Your task to perform on an android device: Open Youtube and go to the subscriptions tab Image 0: 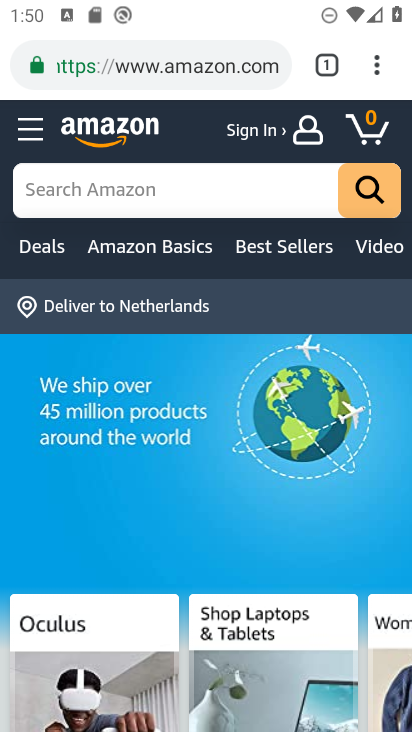
Step 0: press home button
Your task to perform on an android device: Open Youtube and go to the subscriptions tab Image 1: 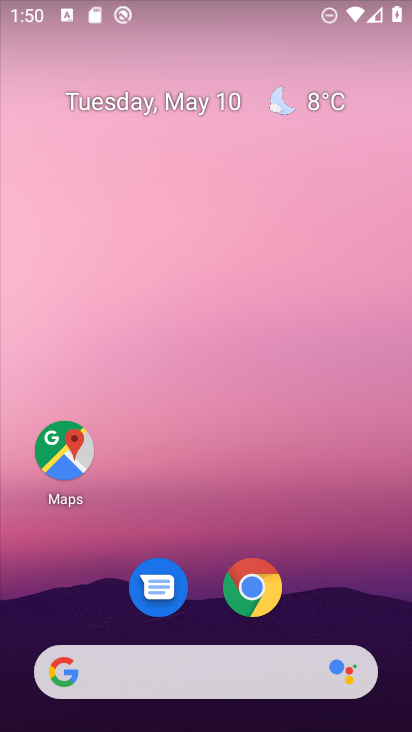
Step 1: drag from (393, 600) to (346, 277)
Your task to perform on an android device: Open Youtube and go to the subscriptions tab Image 2: 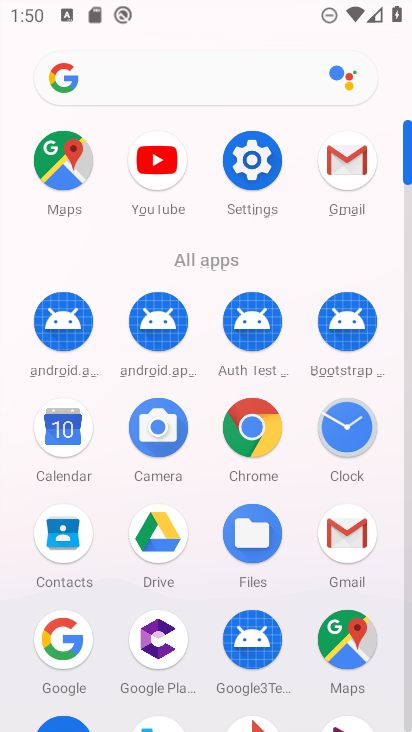
Step 2: click (147, 170)
Your task to perform on an android device: Open Youtube and go to the subscriptions tab Image 3: 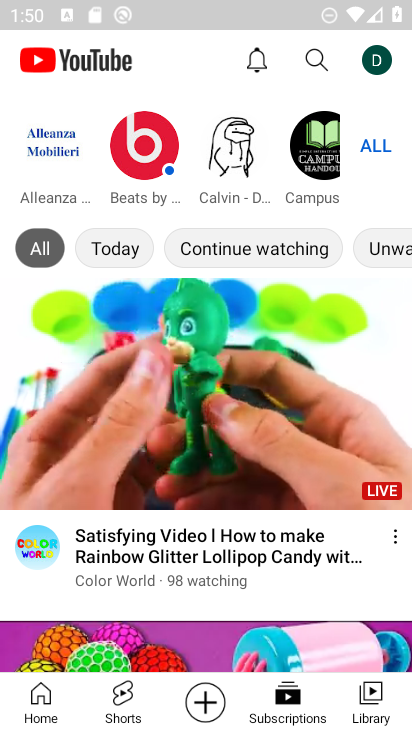
Step 3: click (301, 701)
Your task to perform on an android device: Open Youtube and go to the subscriptions tab Image 4: 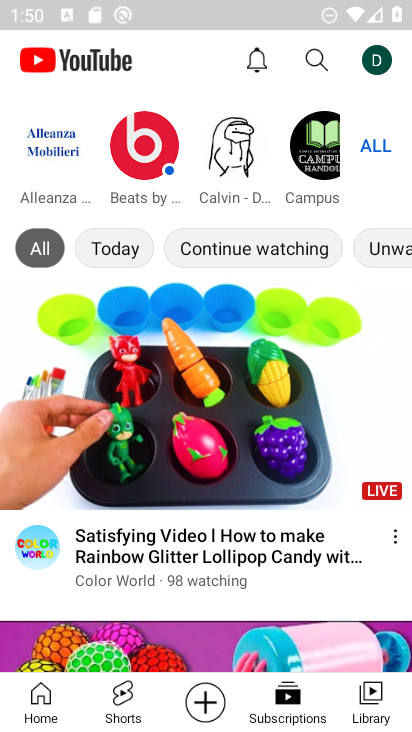
Step 4: click (282, 698)
Your task to perform on an android device: Open Youtube and go to the subscriptions tab Image 5: 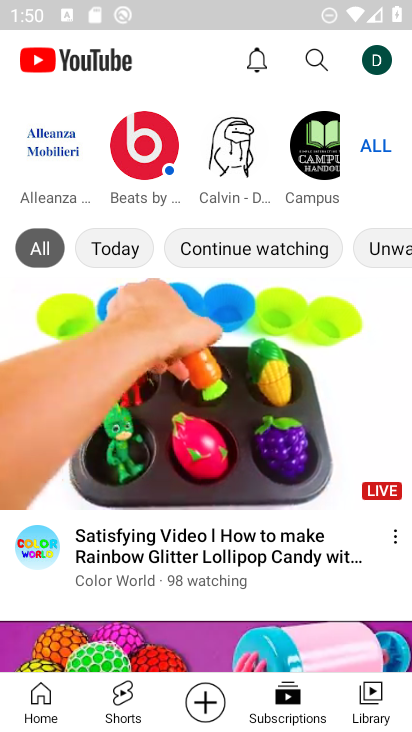
Step 5: task complete